Your task to perform on an android device: turn notification dots on Image 0: 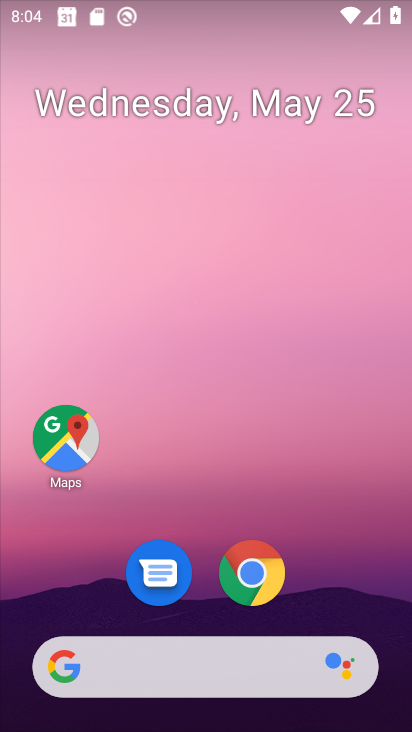
Step 0: drag from (398, 710) to (328, 246)
Your task to perform on an android device: turn notification dots on Image 1: 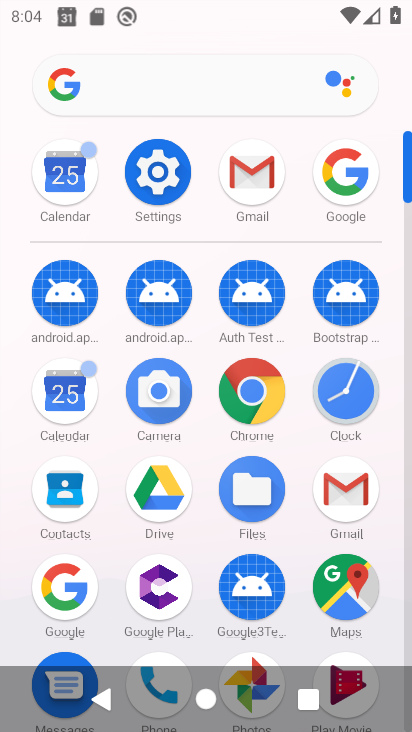
Step 1: click (145, 174)
Your task to perform on an android device: turn notification dots on Image 2: 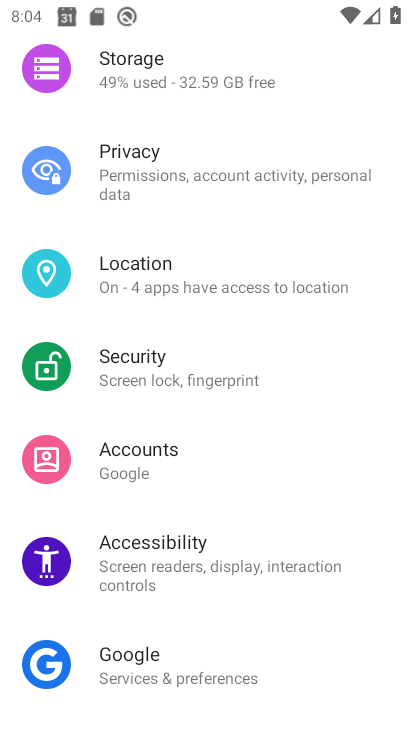
Step 2: drag from (364, 81) to (324, 666)
Your task to perform on an android device: turn notification dots on Image 3: 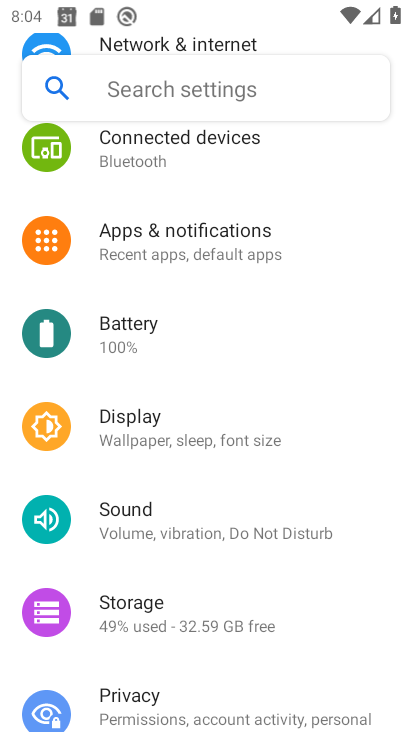
Step 3: click (180, 237)
Your task to perform on an android device: turn notification dots on Image 4: 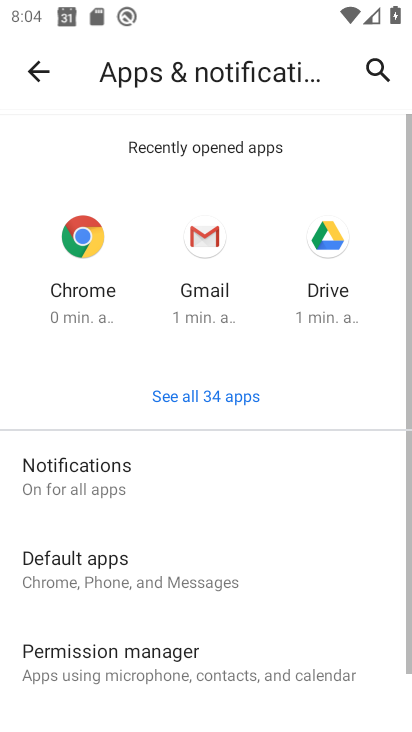
Step 4: click (103, 470)
Your task to perform on an android device: turn notification dots on Image 5: 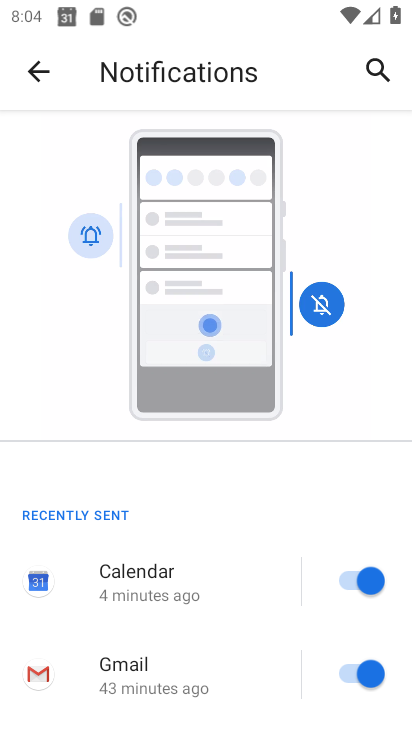
Step 5: drag from (263, 712) to (241, 269)
Your task to perform on an android device: turn notification dots on Image 6: 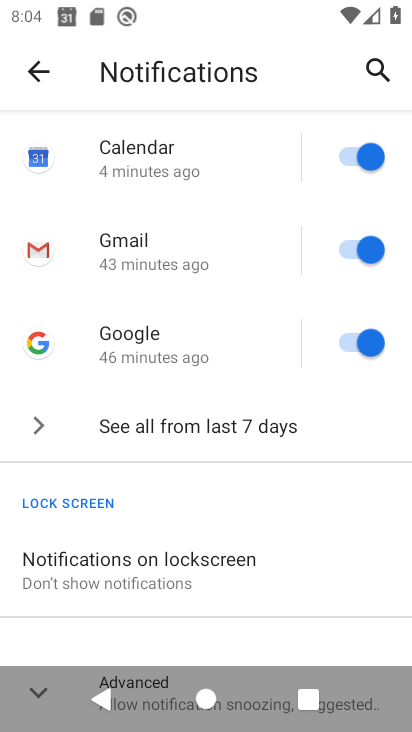
Step 6: drag from (262, 618) to (245, 316)
Your task to perform on an android device: turn notification dots on Image 7: 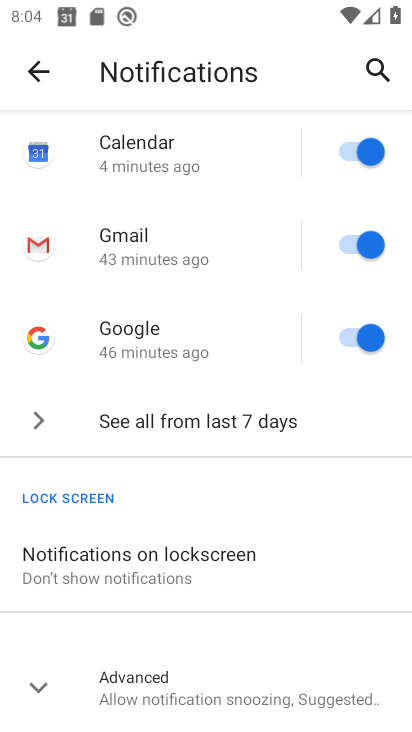
Step 7: click (32, 690)
Your task to perform on an android device: turn notification dots on Image 8: 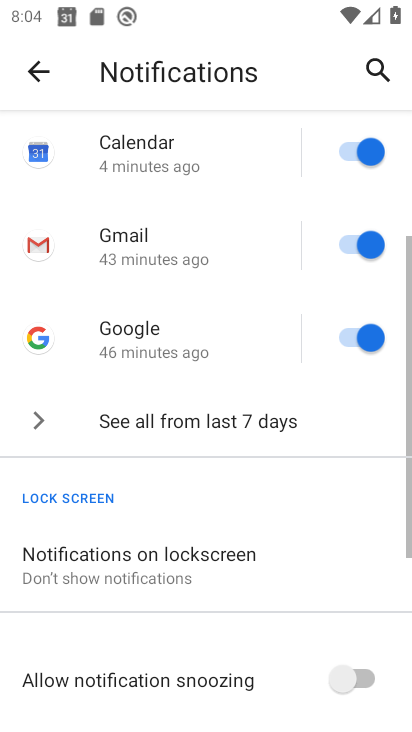
Step 8: task complete